Your task to perform on an android device: Search for Italian restaurants on Maps Image 0: 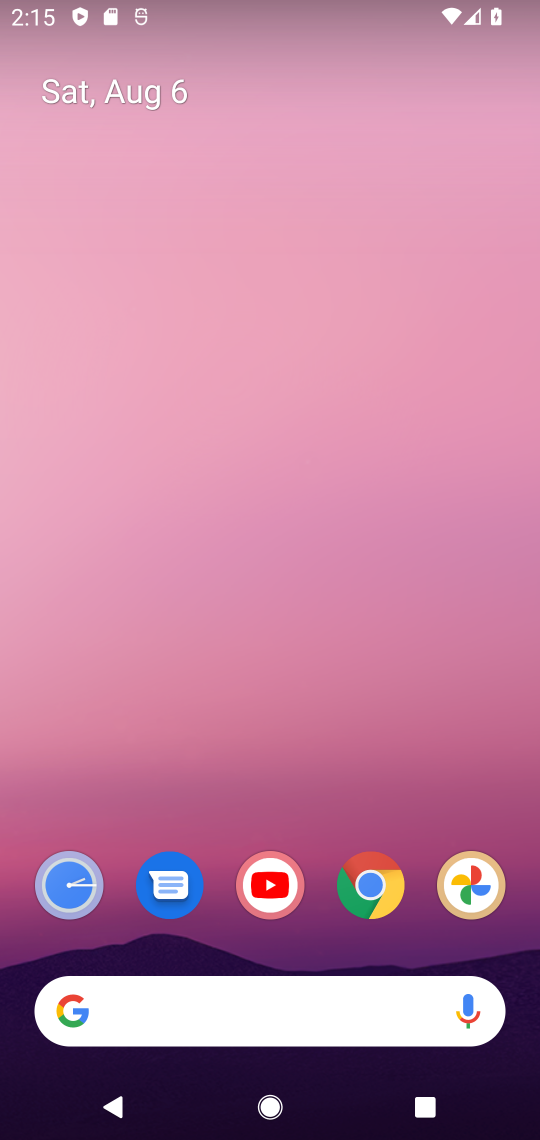
Step 0: drag from (422, 966) to (250, 0)
Your task to perform on an android device: Search for Italian restaurants on Maps Image 1: 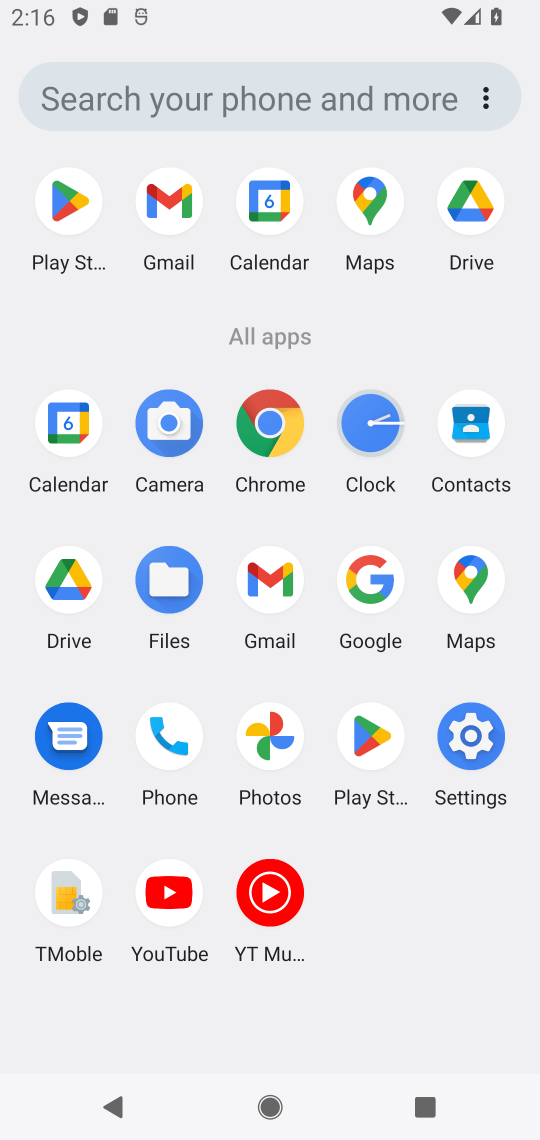
Step 1: click (459, 597)
Your task to perform on an android device: Search for Italian restaurants on Maps Image 2: 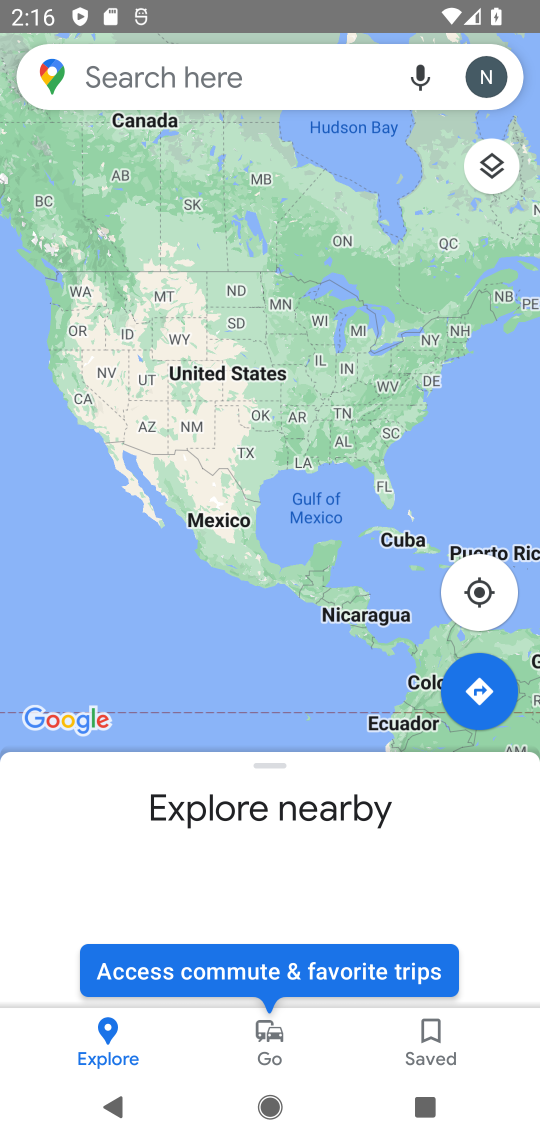
Step 2: click (104, 68)
Your task to perform on an android device: Search for Italian restaurants on Maps Image 3: 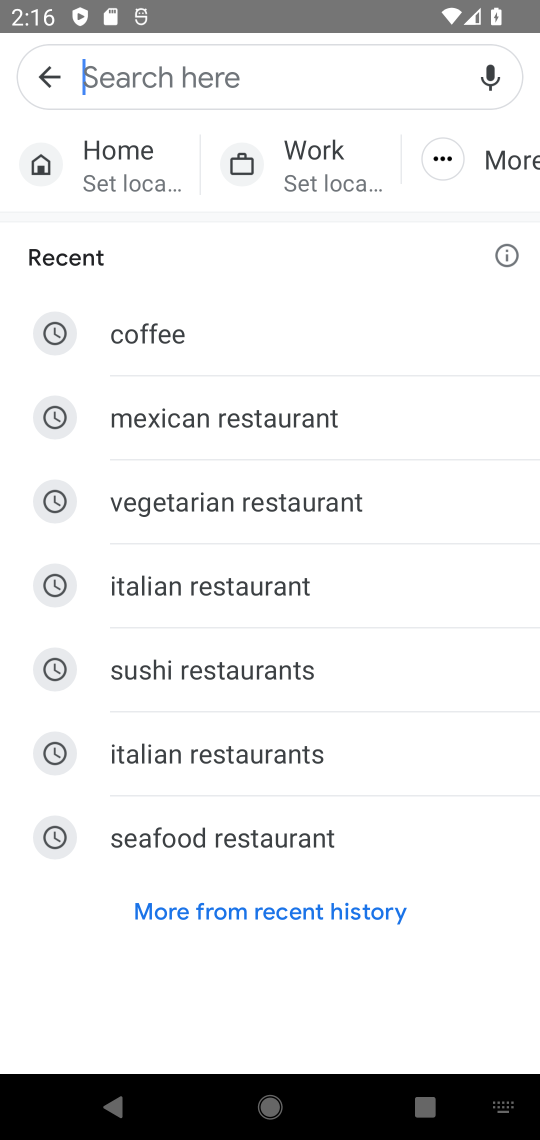
Step 3: type "Italian restaurants"
Your task to perform on an android device: Search for Italian restaurants on Maps Image 4: 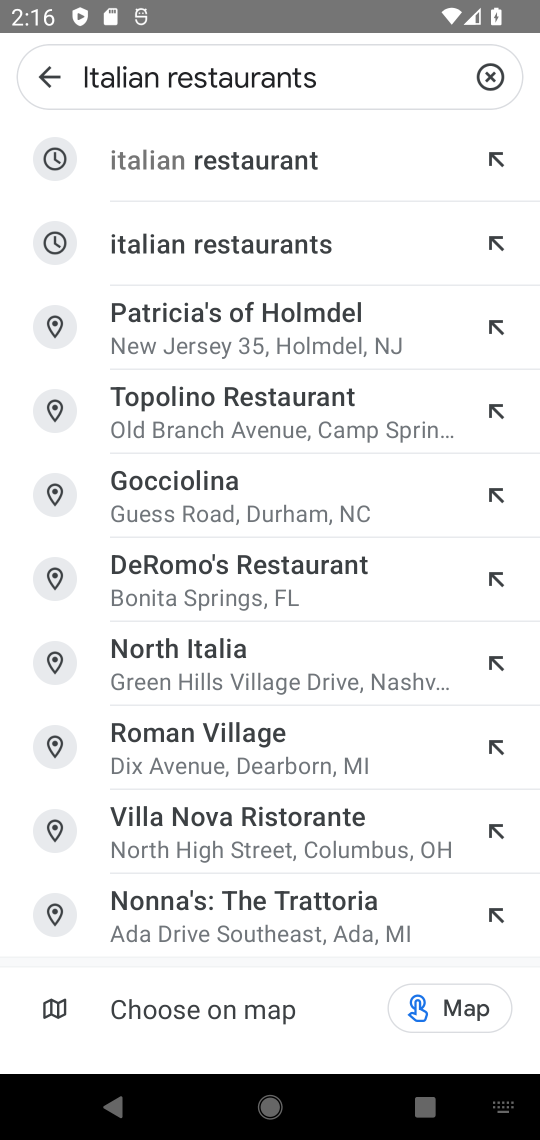
Step 4: click (328, 181)
Your task to perform on an android device: Search for Italian restaurants on Maps Image 5: 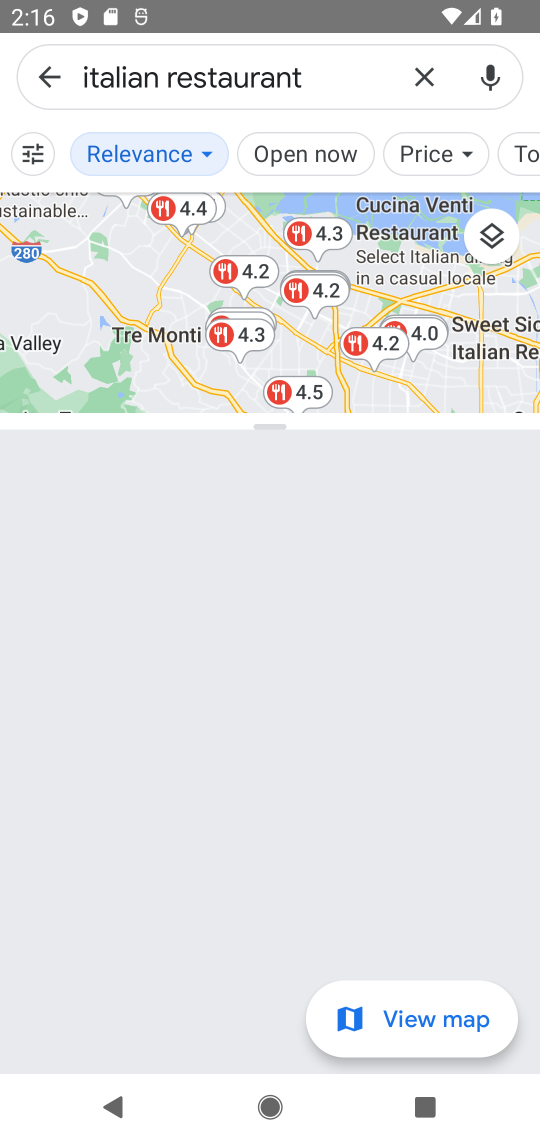
Step 5: task complete